Your task to perform on an android device: Go to eBay Image 0: 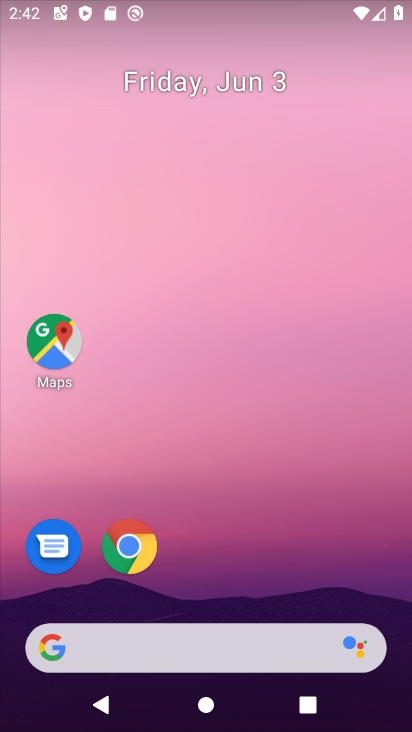
Step 0: click (143, 542)
Your task to perform on an android device: Go to eBay Image 1: 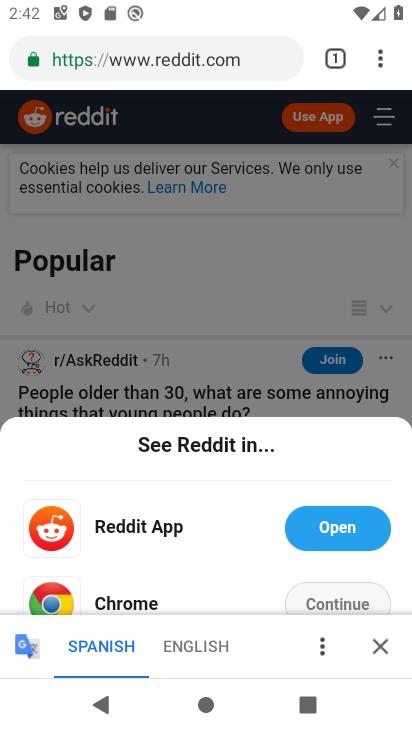
Step 1: click (146, 62)
Your task to perform on an android device: Go to eBay Image 2: 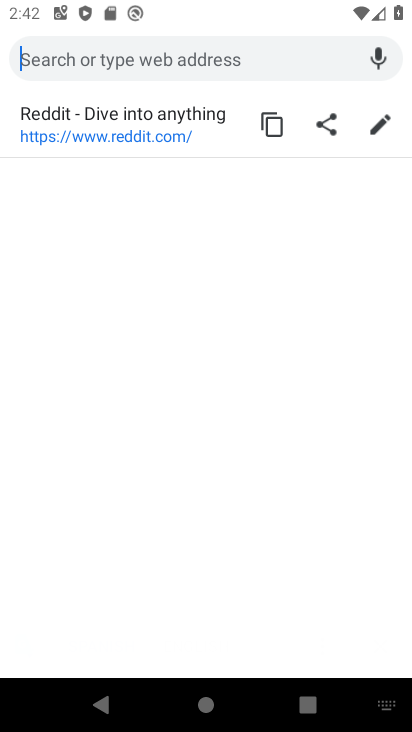
Step 2: type "ebay"
Your task to perform on an android device: Go to eBay Image 3: 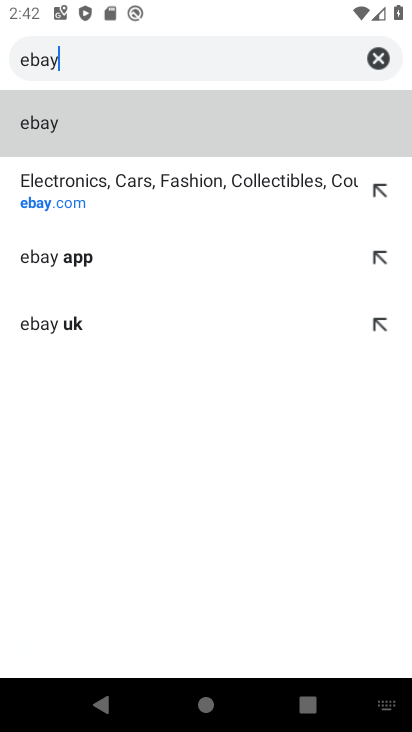
Step 3: click (47, 124)
Your task to perform on an android device: Go to eBay Image 4: 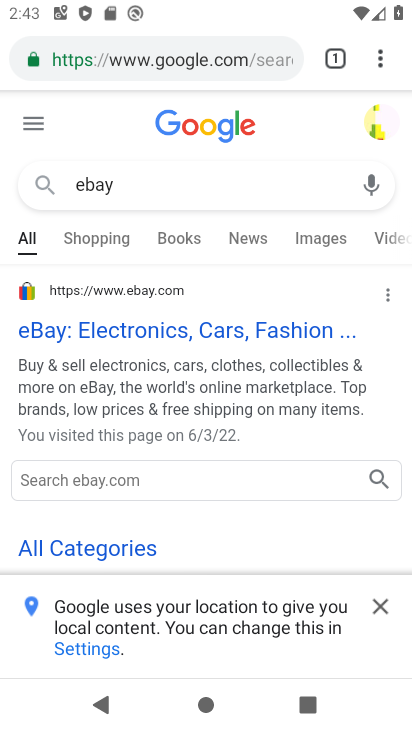
Step 4: click (64, 337)
Your task to perform on an android device: Go to eBay Image 5: 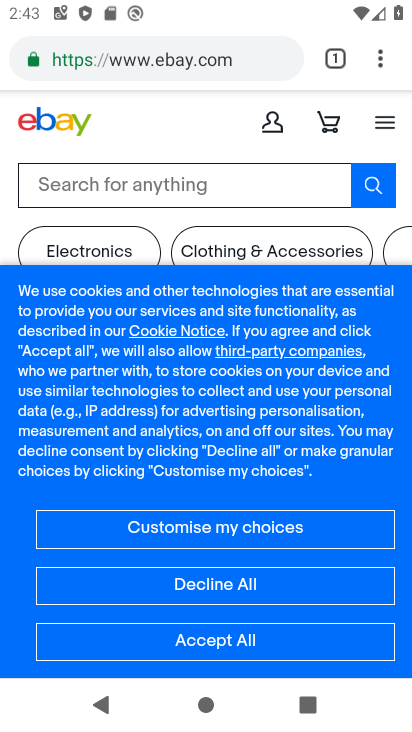
Step 5: task complete